Your task to perform on an android device: Go to Google maps Image 0: 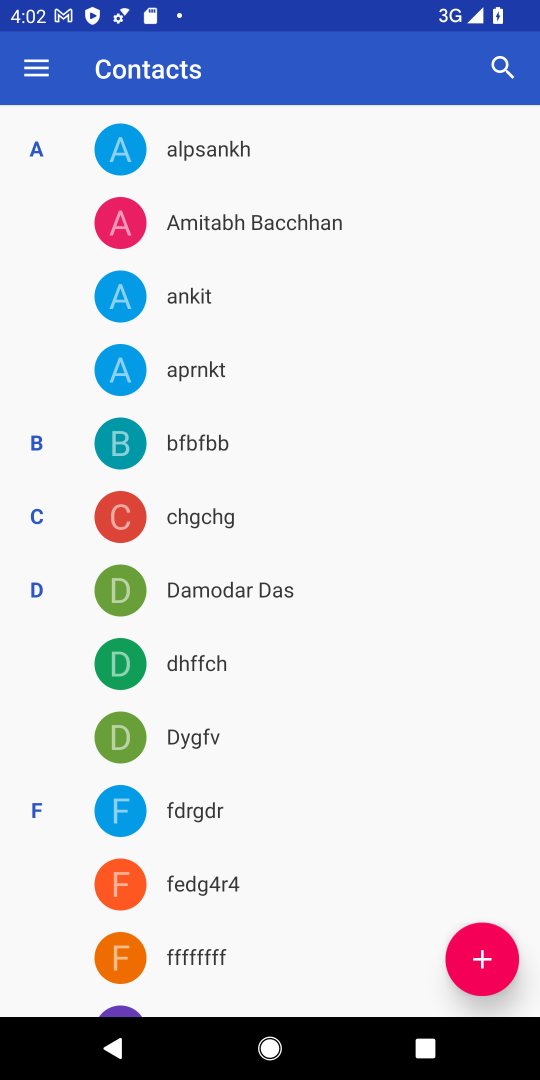
Step 0: press home button
Your task to perform on an android device: Go to Google maps Image 1: 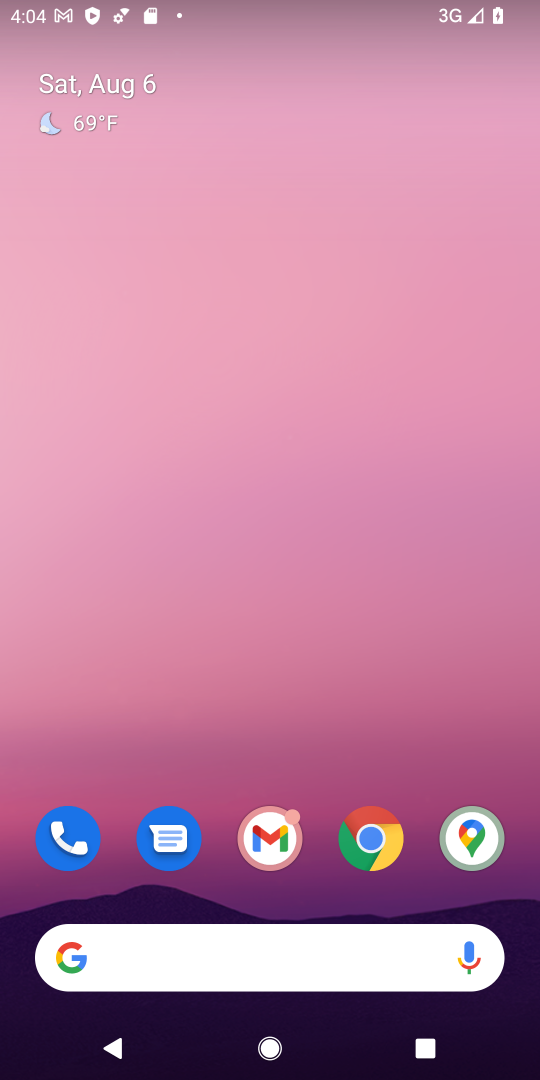
Step 1: click (488, 833)
Your task to perform on an android device: Go to Google maps Image 2: 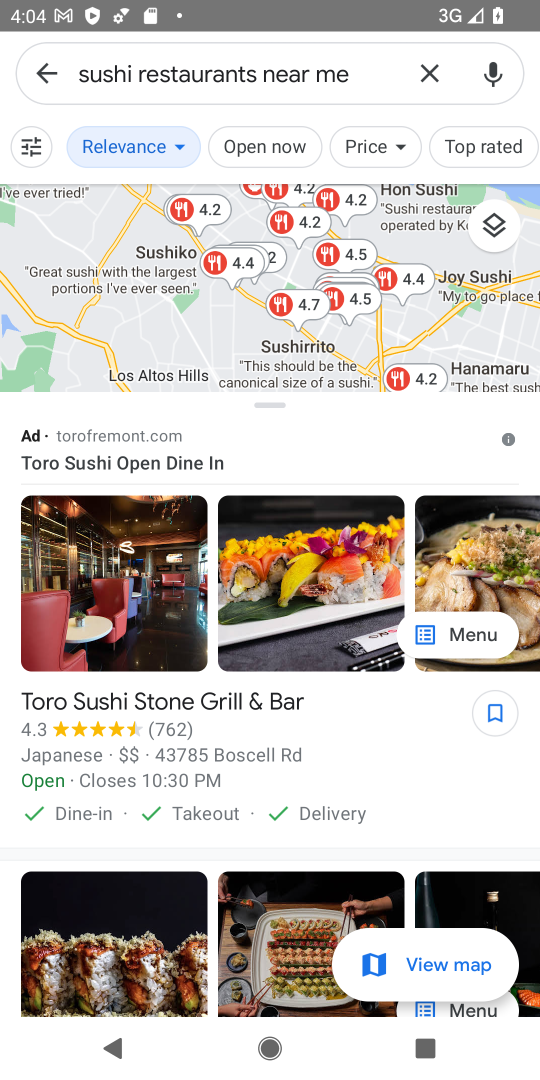
Step 2: task complete